Your task to perform on an android device: Open maps Image 0: 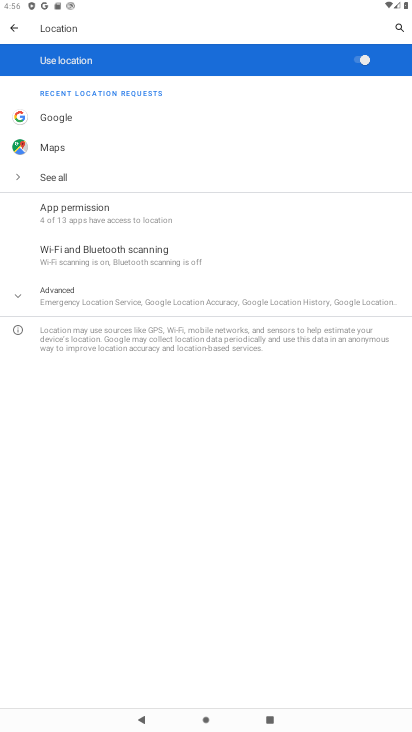
Step 0: press home button
Your task to perform on an android device: Open maps Image 1: 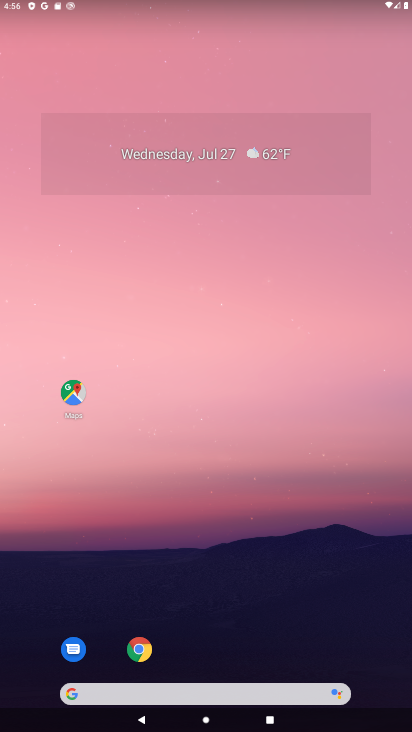
Step 1: click (73, 390)
Your task to perform on an android device: Open maps Image 2: 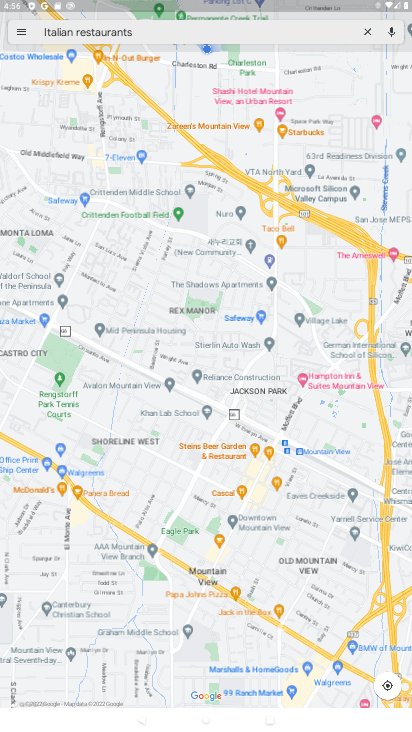
Step 2: press home button
Your task to perform on an android device: Open maps Image 3: 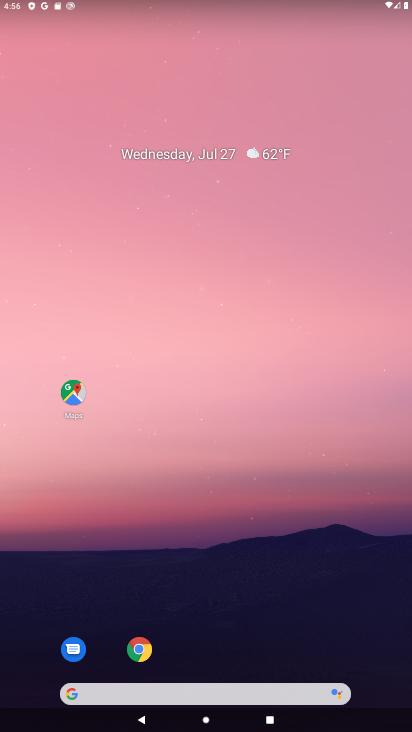
Step 3: click (67, 391)
Your task to perform on an android device: Open maps Image 4: 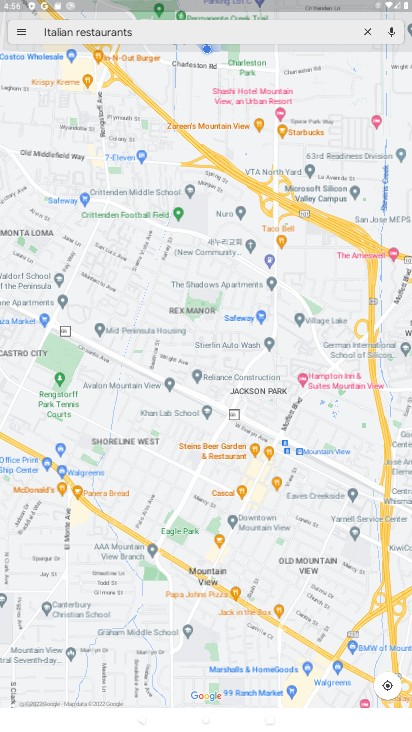
Step 4: task complete